Your task to perform on an android device: change the clock display to show seconds Image 0: 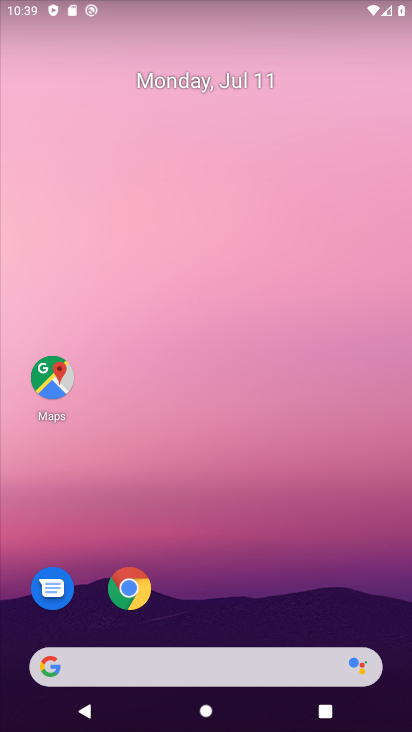
Step 0: drag from (258, 504) to (275, 254)
Your task to perform on an android device: change the clock display to show seconds Image 1: 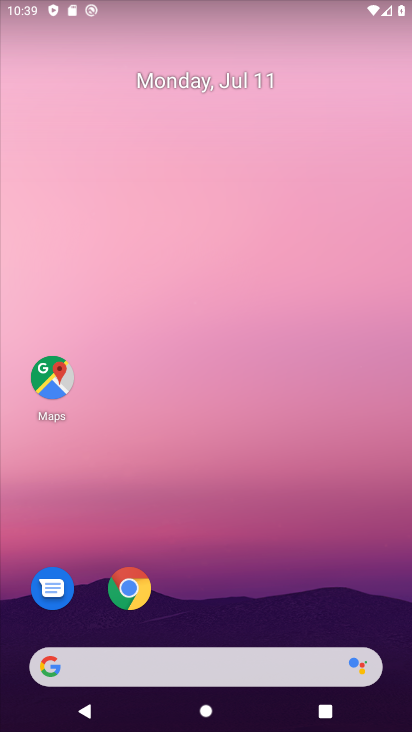
Step 1: drag from (217, 553) to (262, 22)
Your task to perform on an android device: change the clock display to show seconds Image 2: 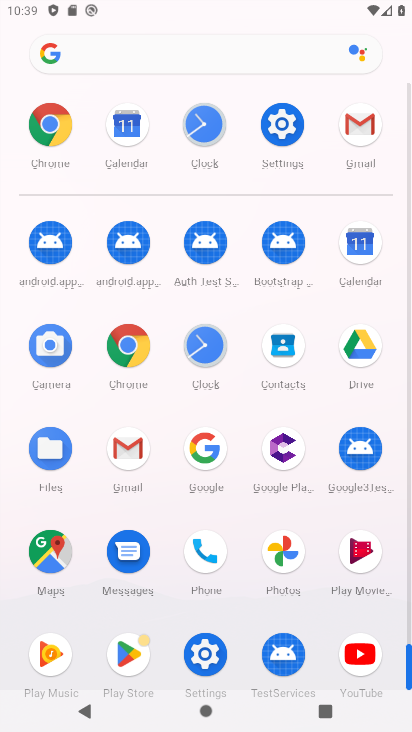
Step 2: click (205, 347)
Your task to perform on an android device: change the clock display to show seconds Image 3: 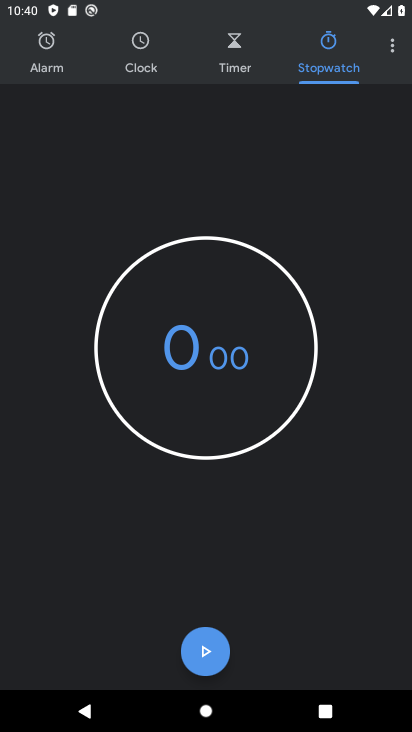
Step 3: click (392, 44)
Your task to perform on an android device: change the clock display to show seconds Image 4: 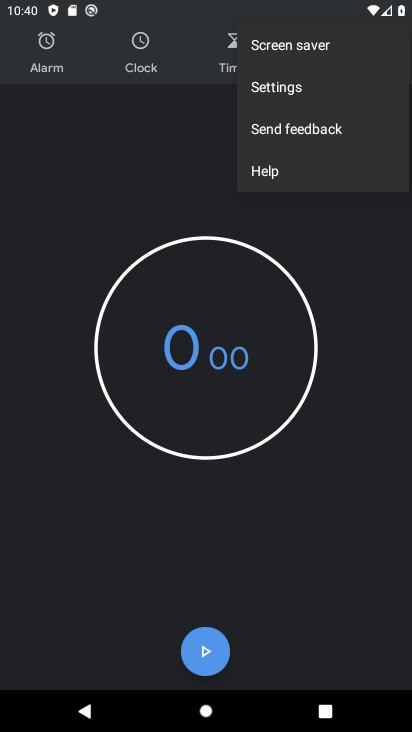
Step 4: click (291, 83)
Your task to perform on an android device: change the clock display to show seconds Image 5: 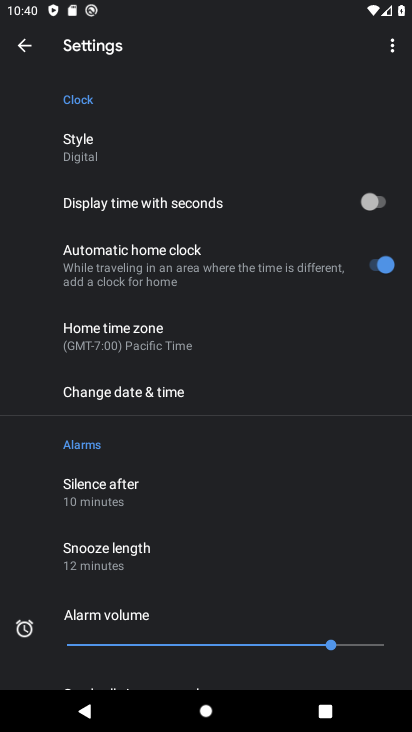
Step 5: click (375, 202)
Your task to perform on an android device: change the clock display to show seconds Image 6: 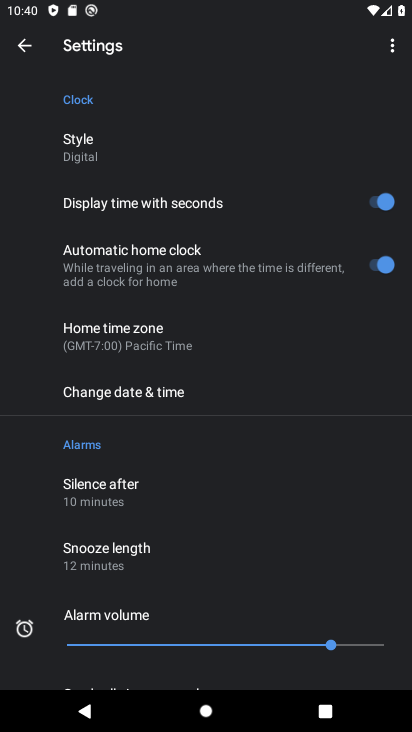
Step 6: task complete